Your task to perform on an android device: Show me popular videos on Youtube Image 0: 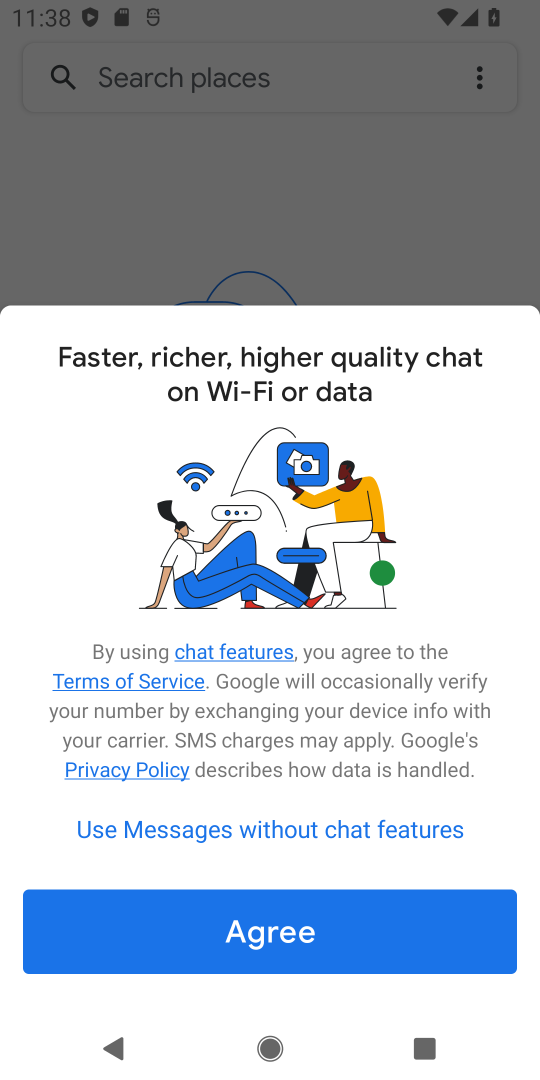
Step 0: press home button
Your task to perform on an android device: Show me popular videos on Youtube Image 1: 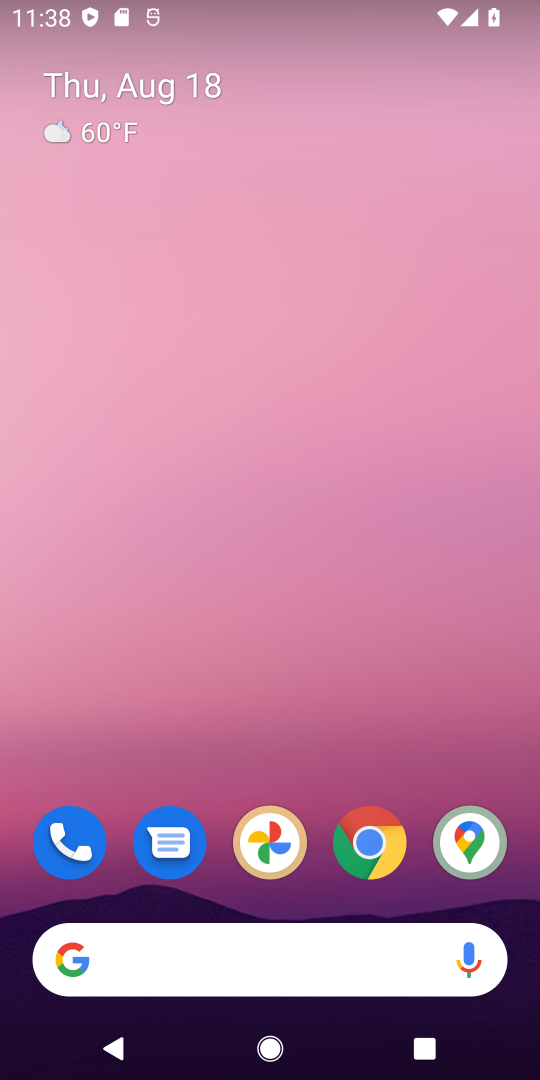
Step 1: drag from (310, 893) to (342, 112)
Your task to perform on an android device: Show me popular videos on Youtube Image 2: 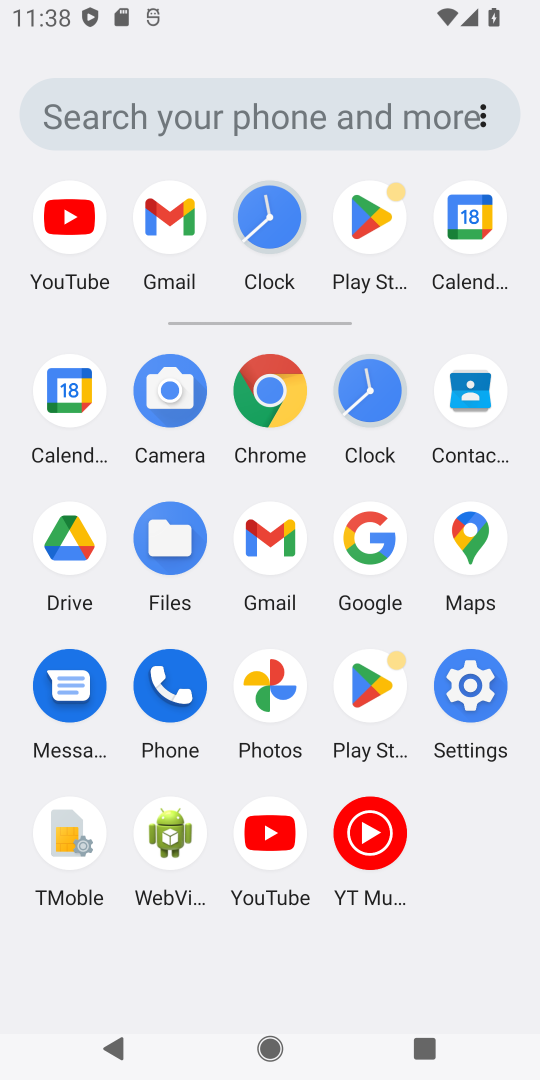
Step 2: click (342, 112)
Your task to perform on an android device: Show me popular videos on Youtube Image 3: 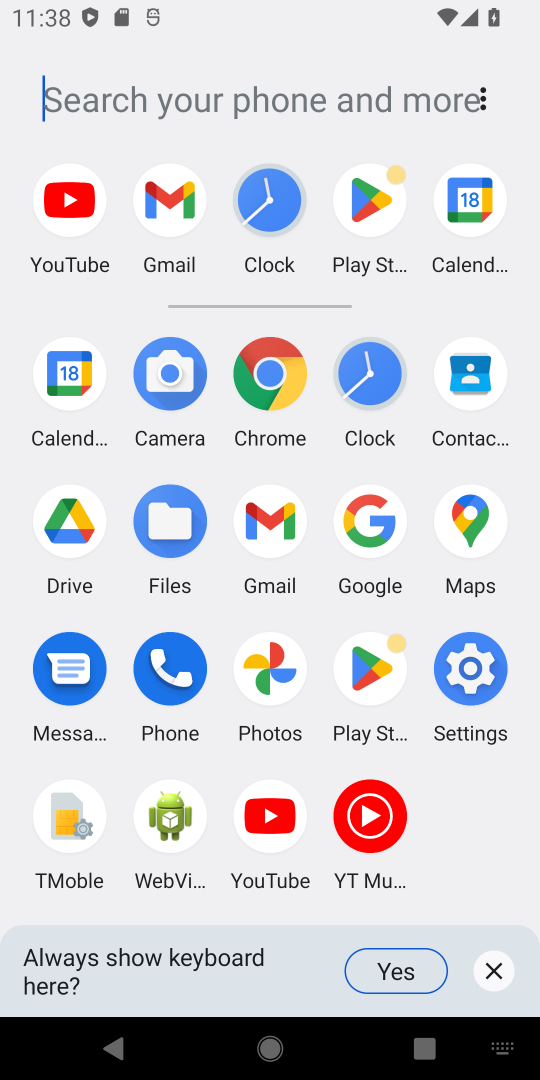
Step 3: click (278, 807)
Your task to perform on an android device: Show me popular videos on Youtube Image 4: 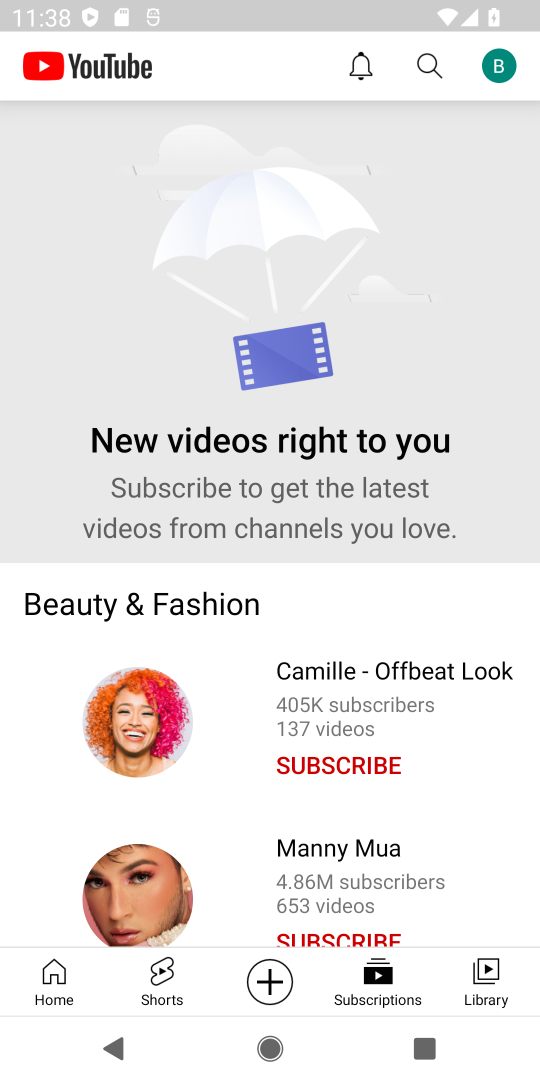
Step 4: click (59, 973)
Your task to perform on an android device: Show me popular videos on Youtube Image 5: 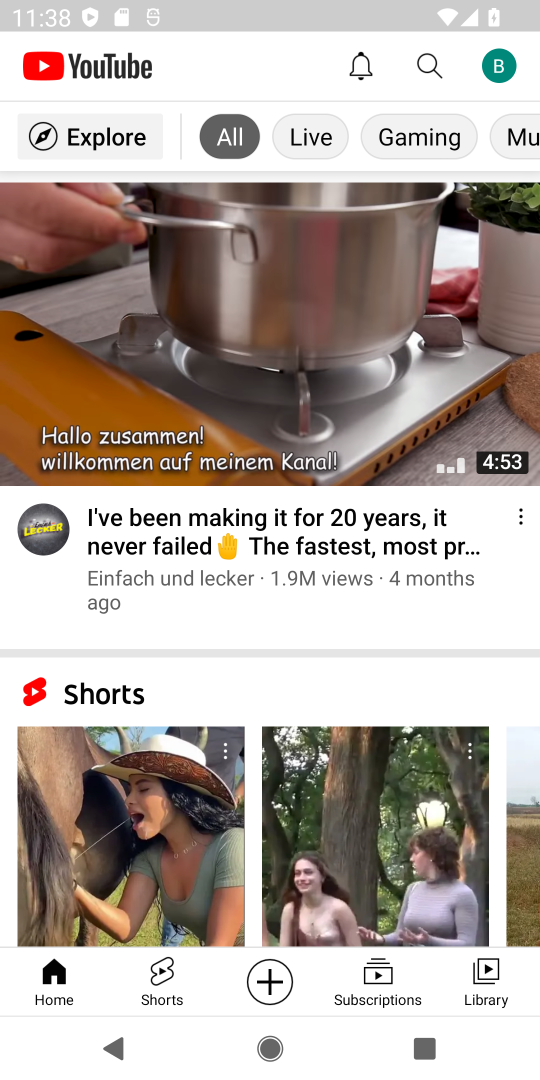
Step 5: click (130, 134)
Your task to perform on an android device: Show me popular videos on Youtube Image 6: 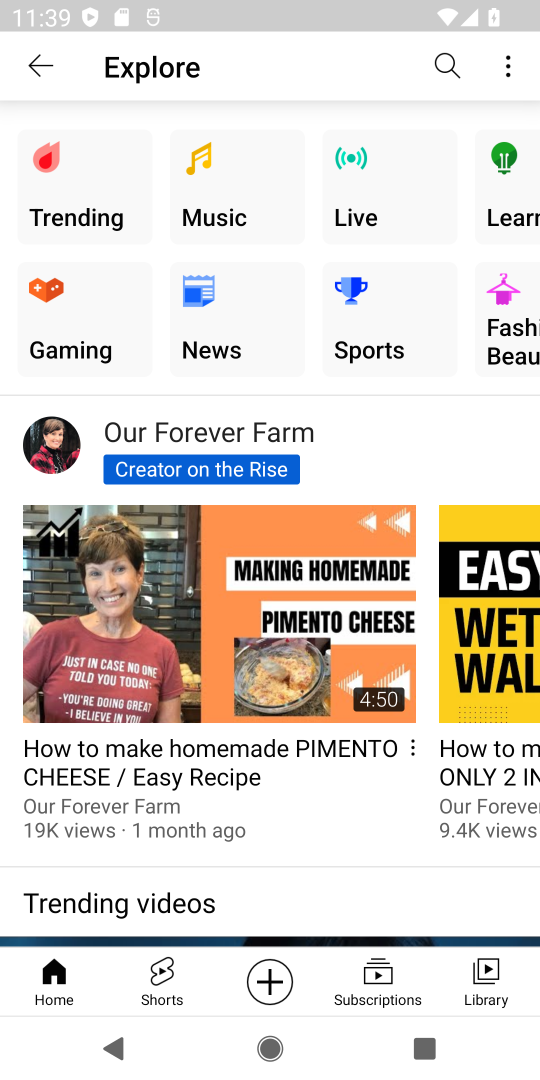
Step 6: click (72, 190)
Your task to perform on an android device: Show me popular videos on Youtube Image 7: 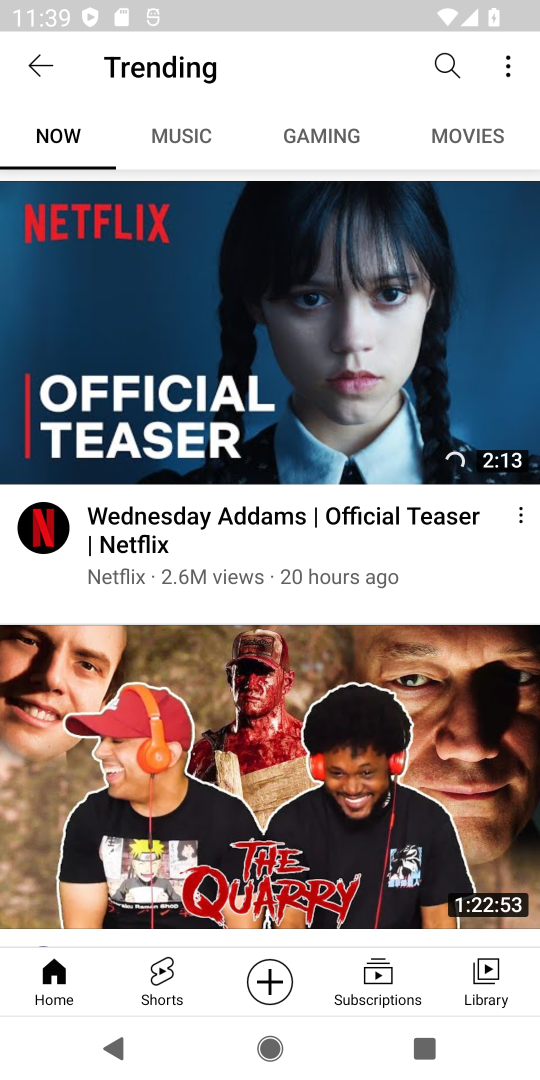
Step 7: task complete